Your task to perform on an android device: Search for Italian restaurants on Maps Image 0: 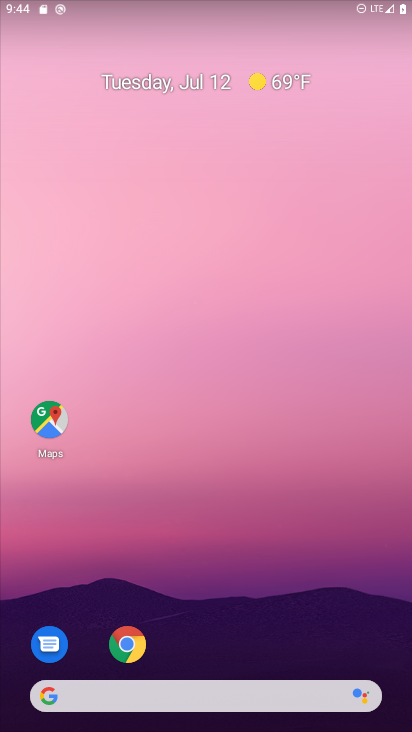
Step 0: press home button
Your task to perform on an android device: Search for Italian restaurants on Maps Image 1: 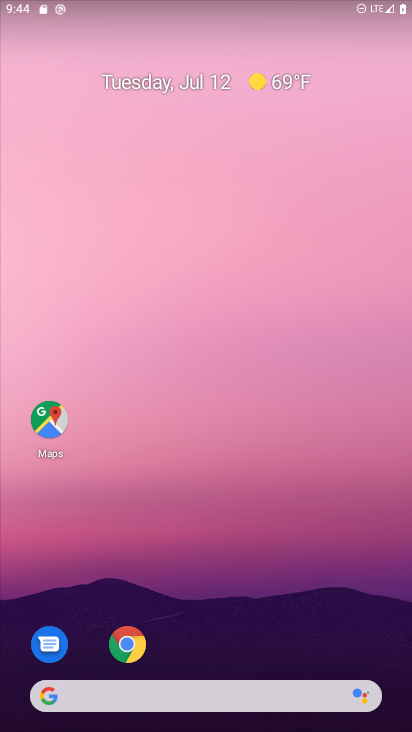
Step 1: drag from (231, 649) to (236, 92)
Your task to perform on an android device: Search for Italian restaurants on Maps Image 2: 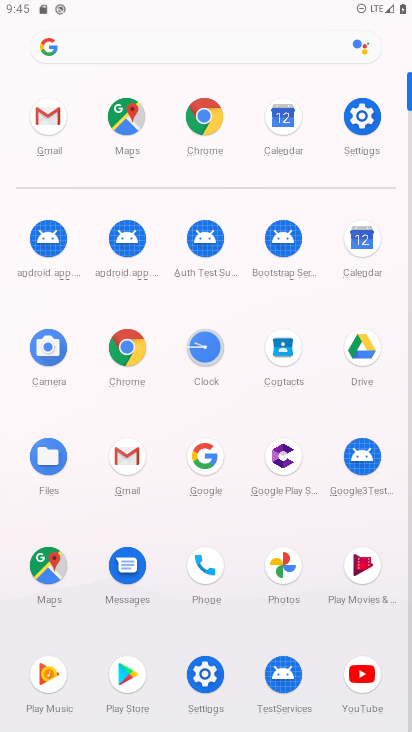
Step 2: press home button
Your task to perform on an android device: Search for Italian restaurants on Maps Image 3: 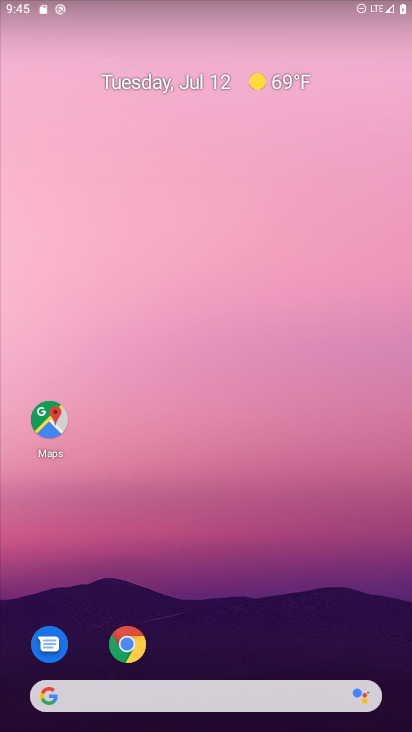
Step 3: click (47, 411)
Your task to perform on an android device: Search for Italian restaurants on Maps Image 4: 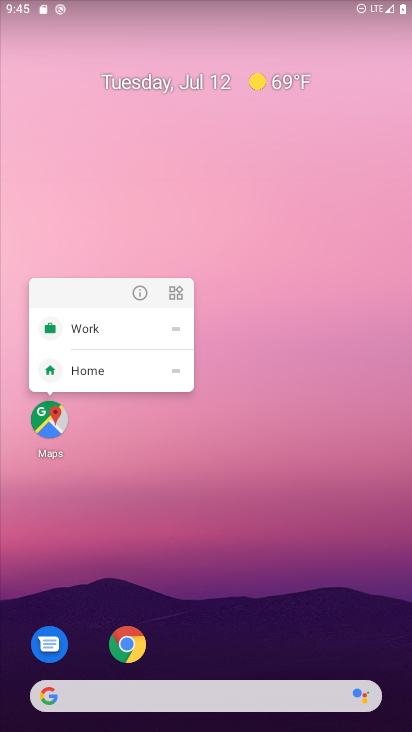
Step 4: click (50, 414)
Your task to perform on an android device: Search for Italian restaurants on Maps Image 5: 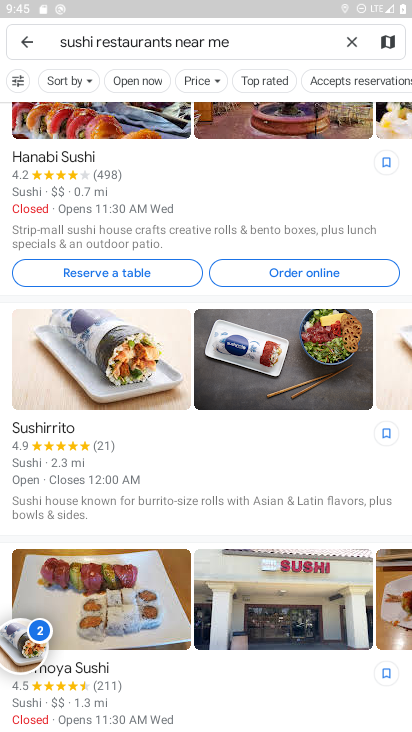
Step 5: click (346, 39)
Your task to perform on an android device: Search for Italian restaurants on Maps Image 6: 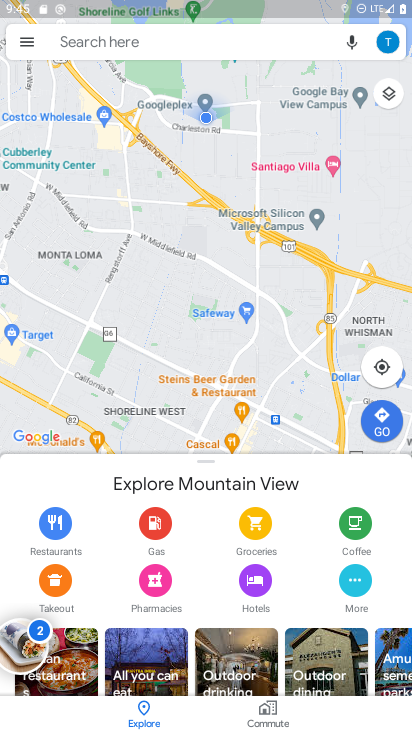
Step 6: click (97, 35)
Your task to perform on an android device: Search for Italian restaurants on Maps Image 7: 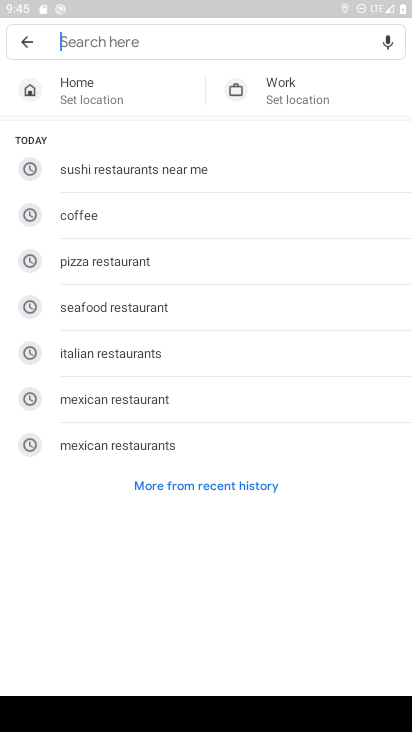
Step 7: click (98, 352)
Your task to perform on an android device: Search for Italian restaurants on Maps Image 8: 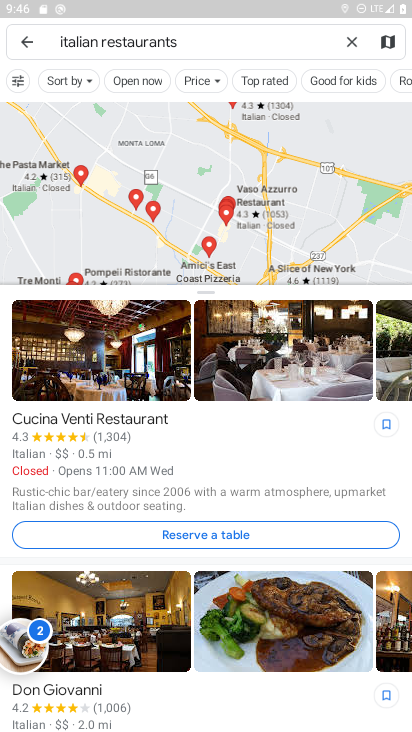
Step 8: task complete